Your task to perform on an android device: Open Chrome and go to settings Image 0: 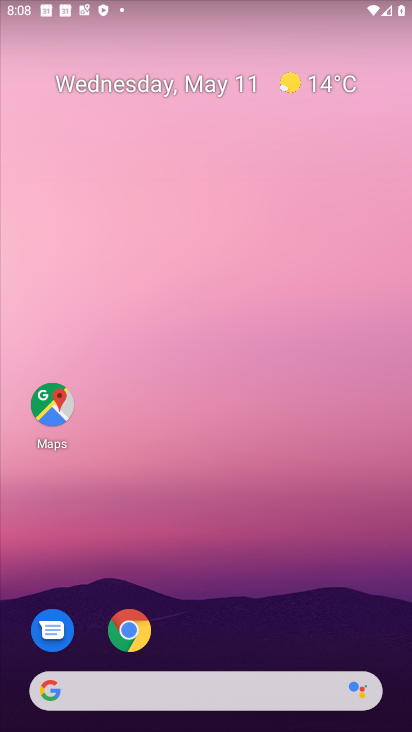
Step 0: click (140, 623)
Your task to perform on an android device: Open Chrome and go to settings Image 1: 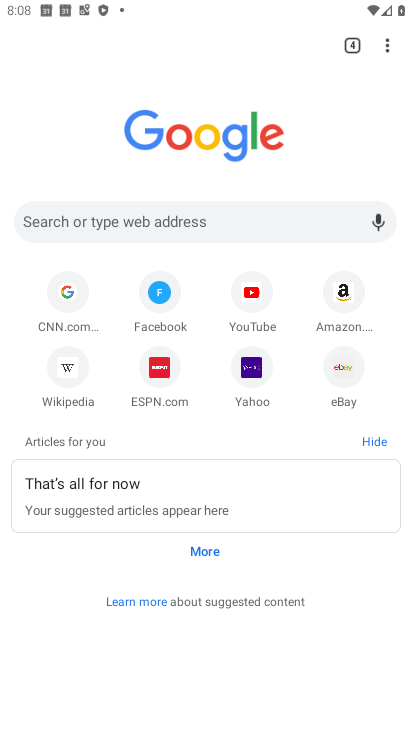
Step 1: click (385, 51)
Your task to perform on an android device: Open Chrome and go to settings Image 2: 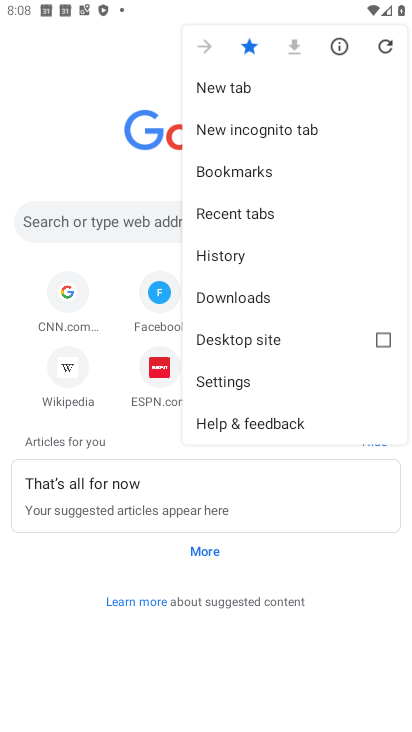
Step 2: click (213, 376)
Your task to perform on an android device: Open Chrome and go to settings Image 3: 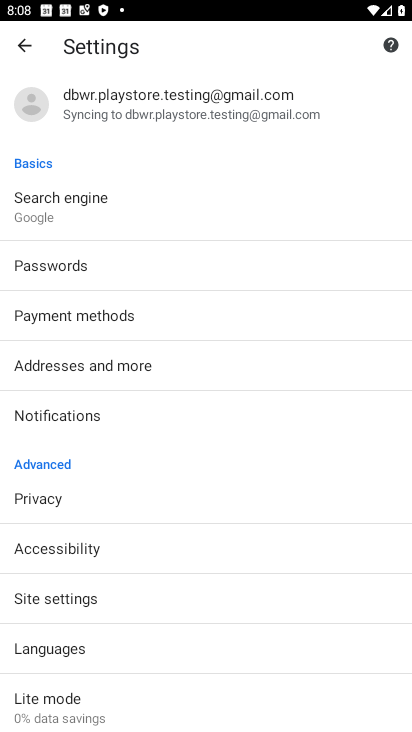
Step 3: task complete